Your task to perform on an android device: Open Android settings Image 0: 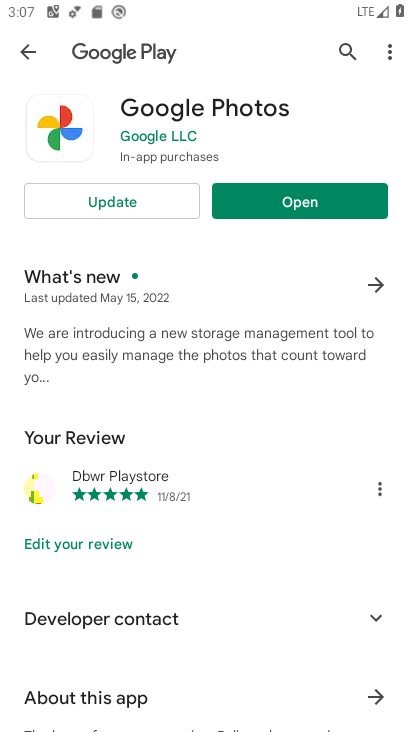
Step 0: press home button
Your task to perform on an android device: Open Android settings Image 1: 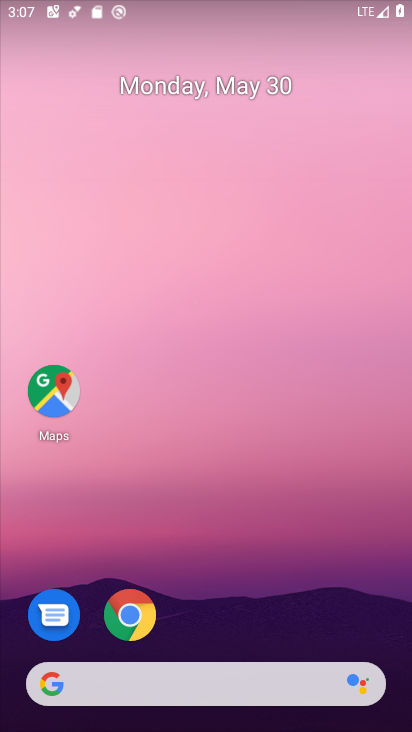
Step 1: drag from (277, 596) to (276, 62)
Your task to perform on an android device: Open Android settings Image 2: 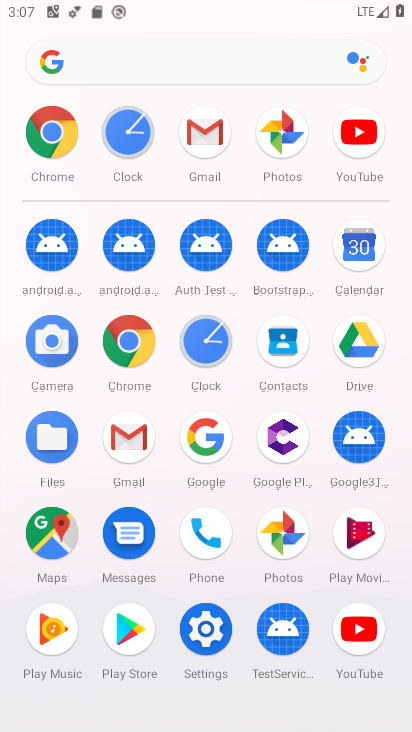
Step 2: click (205, 627)
Your task to perform on an android device: Open Android settings Image 3: 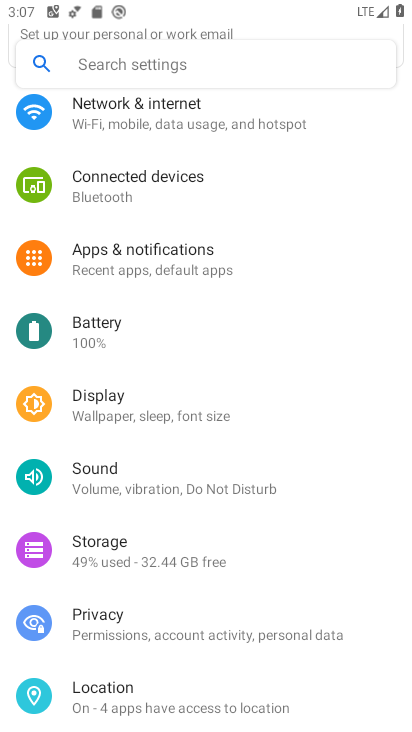
Step 3: drag from (242, 507) to (302, 39)
Your task to perform on an android device: Open Android settings Image 4: 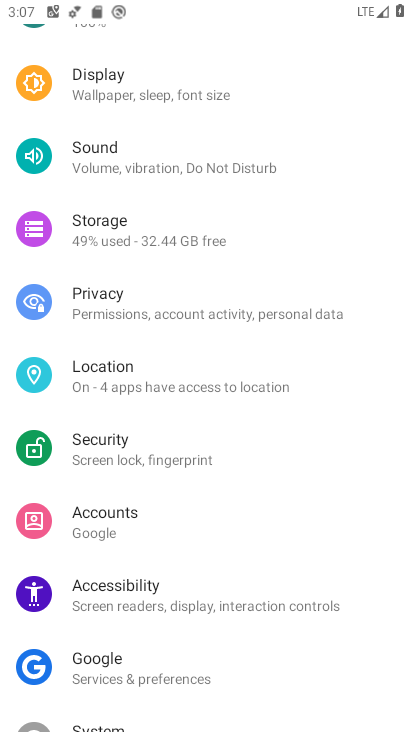
Step 4: drag from (278, 499) to (252, 195)
Your task to perform on an android device: Open Android settings Image 5: 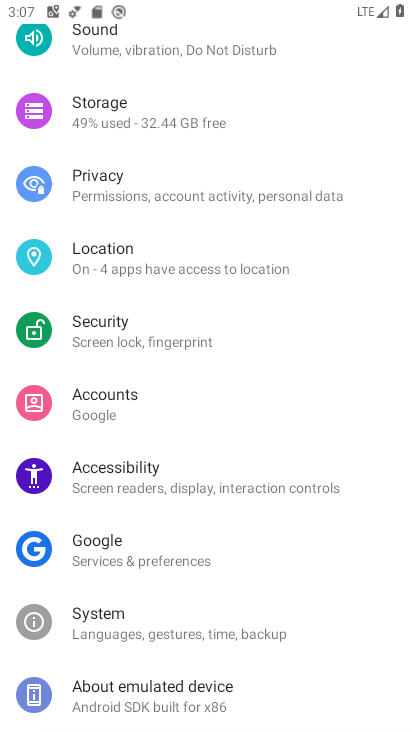
Step 5: click (207, 682)
Your task to perform on an android device: Open Android settings Image 6: 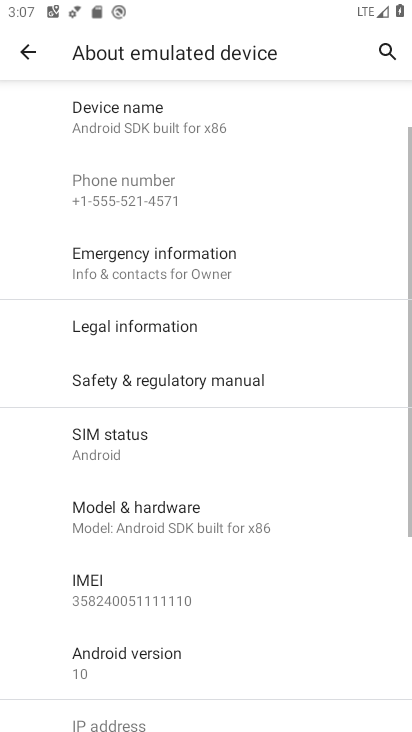
Step 6: task complete